Your task to perform on an android device: What is the news today? Image 0: 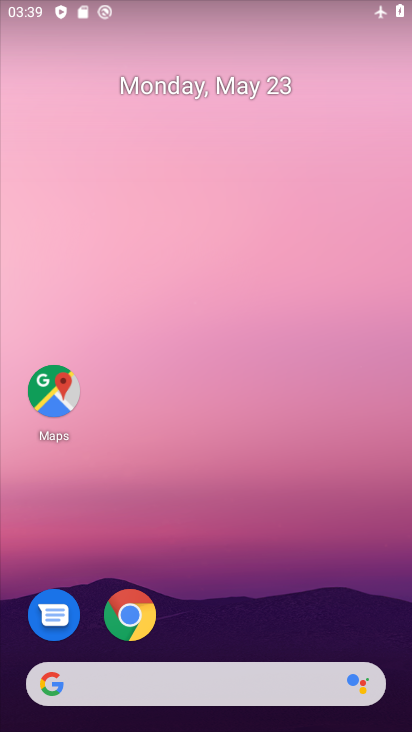
Step 0: drag from (287, 552) to (296, 334)
Your task to perform on an android device: What is the news today? Image 1: 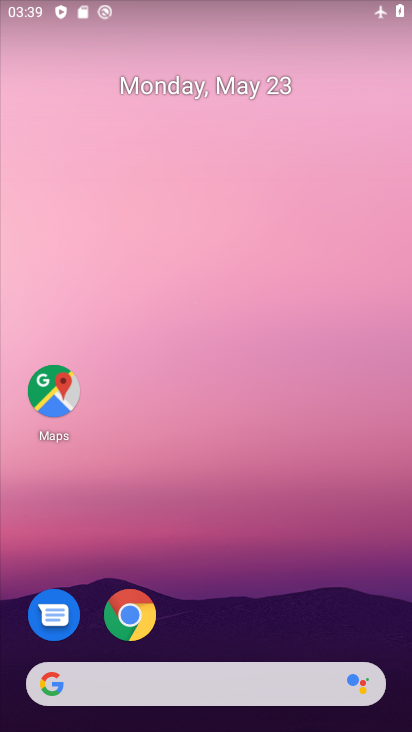
Step 1: drag from (267, 613) to (304, 333)
Your task to perform on an android device: What is the news today? Image 2: 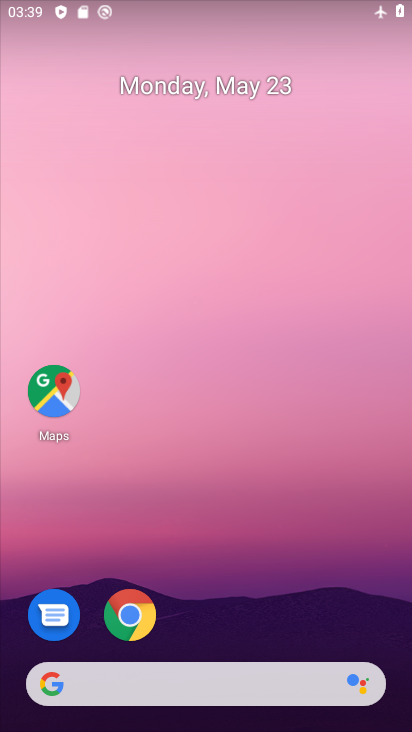
Step 2: drag from (274, 632) to (257, 255)
Your task to perform on an android device: What is the news today? Image 3: 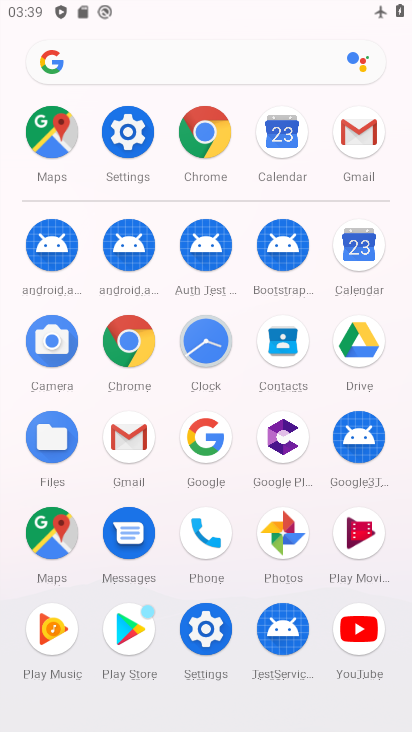
Step 3: click (192, 129)
Your task to perform on an android device: What is the news today? Image 4: 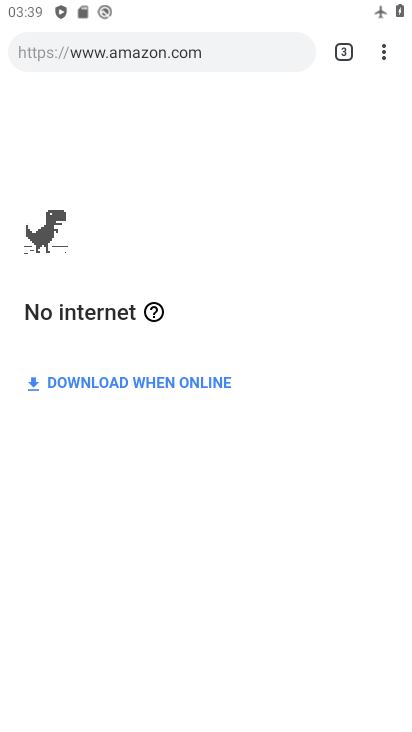
Step 4: click (226, 36)
Your task to perform on an android device: What is the news today? Image 5: 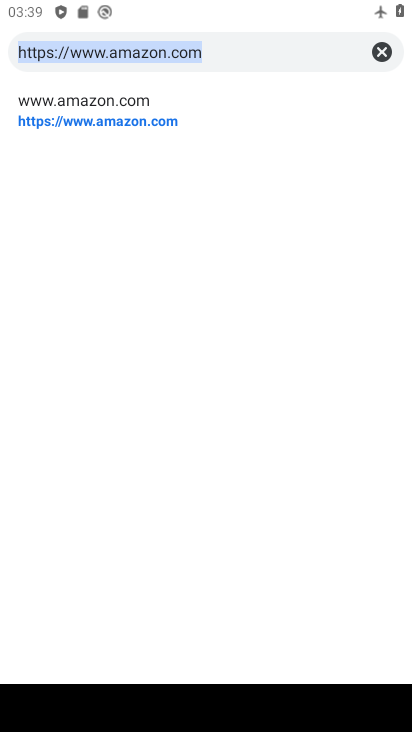
Step 5: click (382, 51)
Your task to perform on an android device: What is the news today? Image 6: 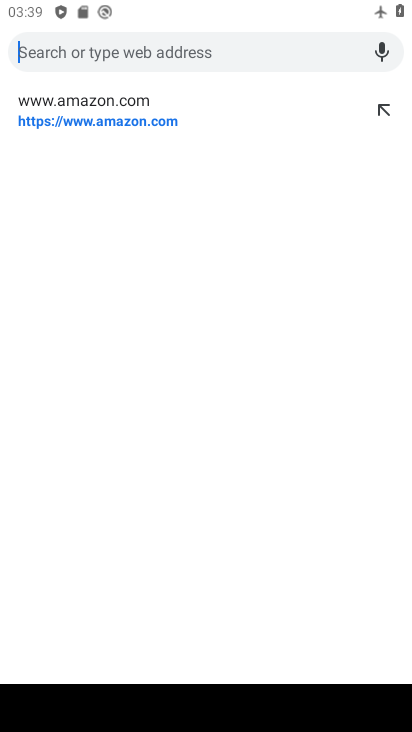
Step 6: click (102, 41)
Your task to perform on an android device: What is the news today? Image 7: 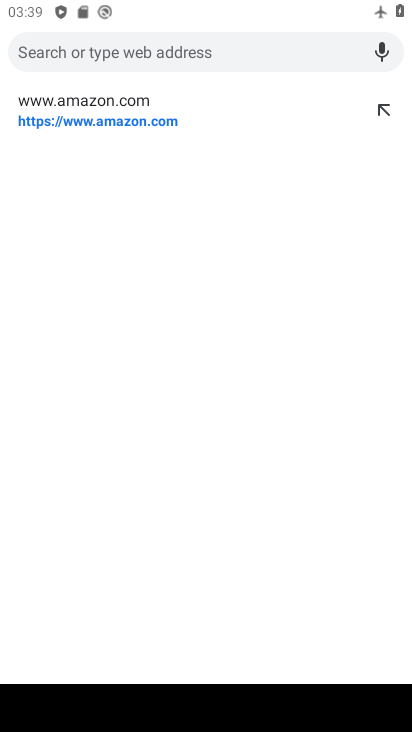
Step 7: type "What is the news today?"
Your task to perform on an android device: What is the news today? Image 8: 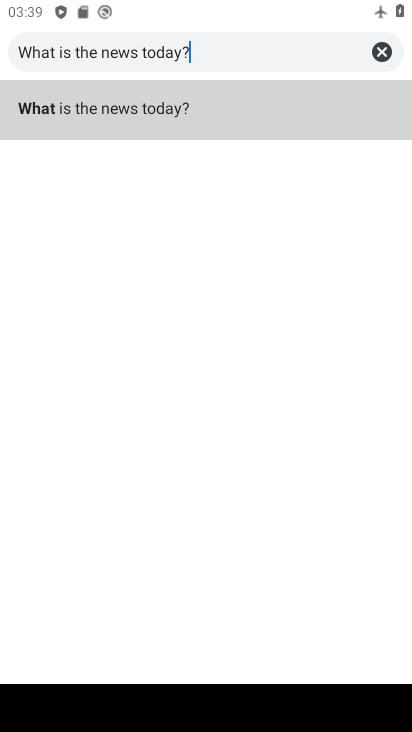
Step 8: click (180, 95)
Your task to perform on an android device: What is the news today? Image 9: 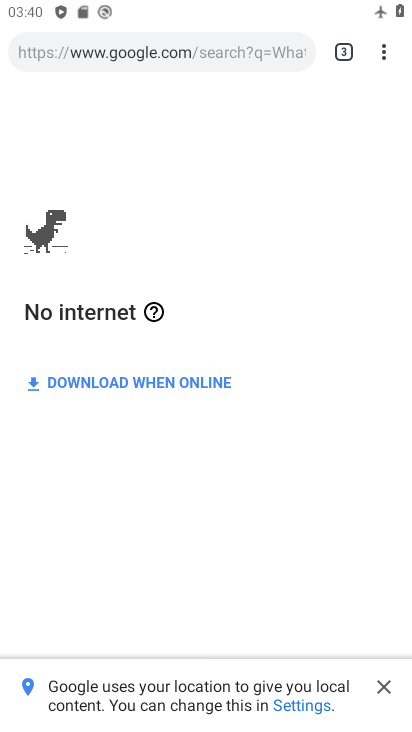
Step 9: task complete